Your task to perform on an android device: set an alarm Image 0: 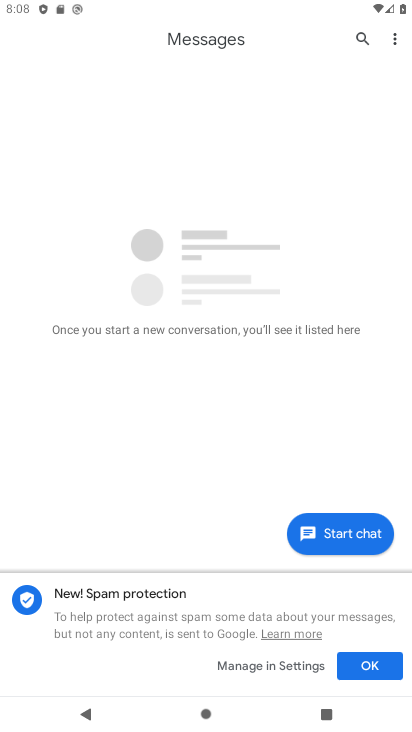
Step 0: press home button
Your task to perform on an android device: set an alarm Image 1: 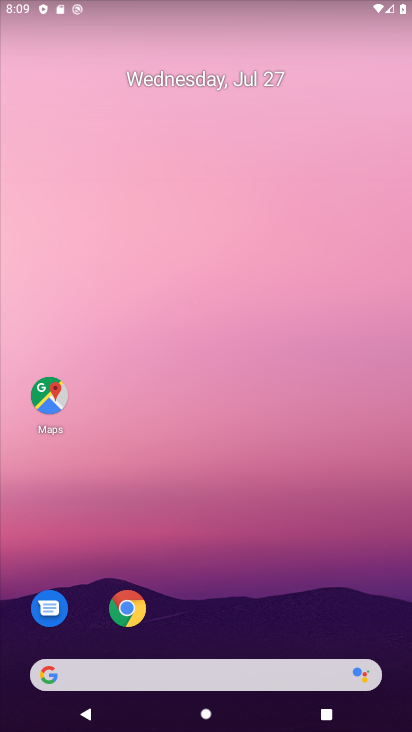
Step 1: drag from (242, 520) to (273, 169)
Your task to perform on an android device: set an alarm Image 2: 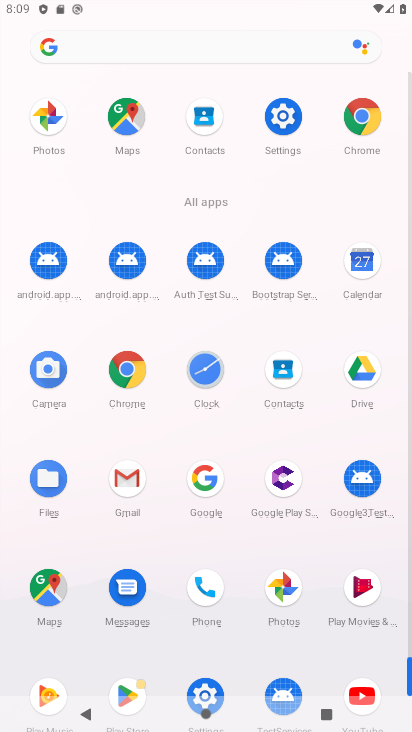
Step 2: click (205, 369)
Your task to perform on an android device: set an alarm Image 3: 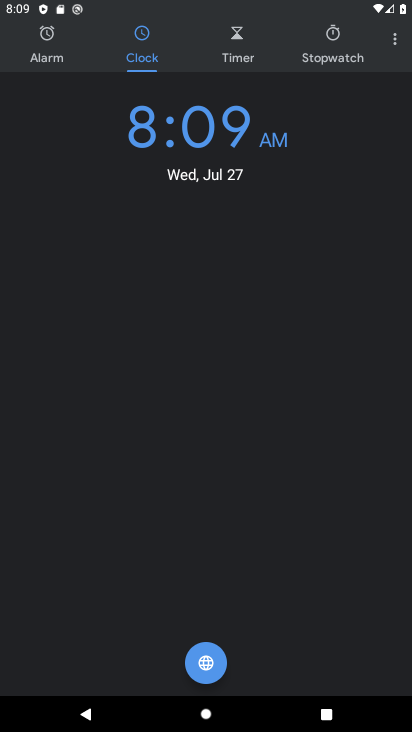
Step 3: click (45, 39)
Your task to perform on an android device: set an alarm Image 4: 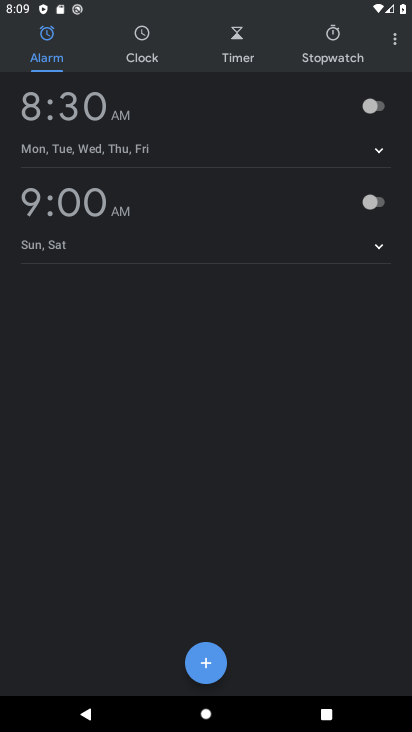
Step 4: click (372, 108)
Your task to perform on an android device: set an alarm Image 5: 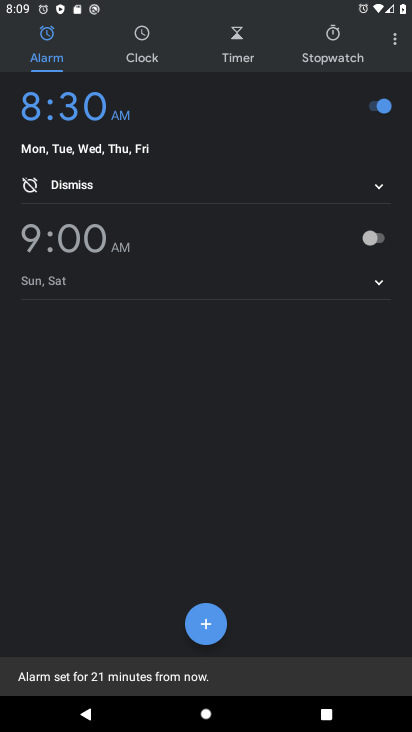
Step 5: task complete